Your task to perform on an android device: What's the news in Sri Lanka? Image 0: 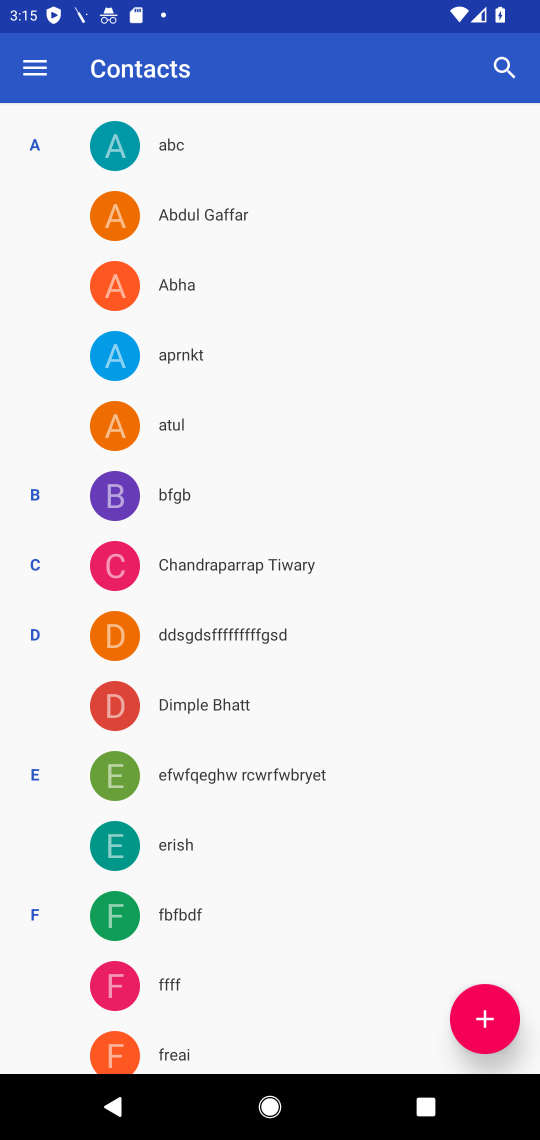
Step 0: press home button
Your task to perform on an android device: What's the news in Sri Lanka? Image 1: 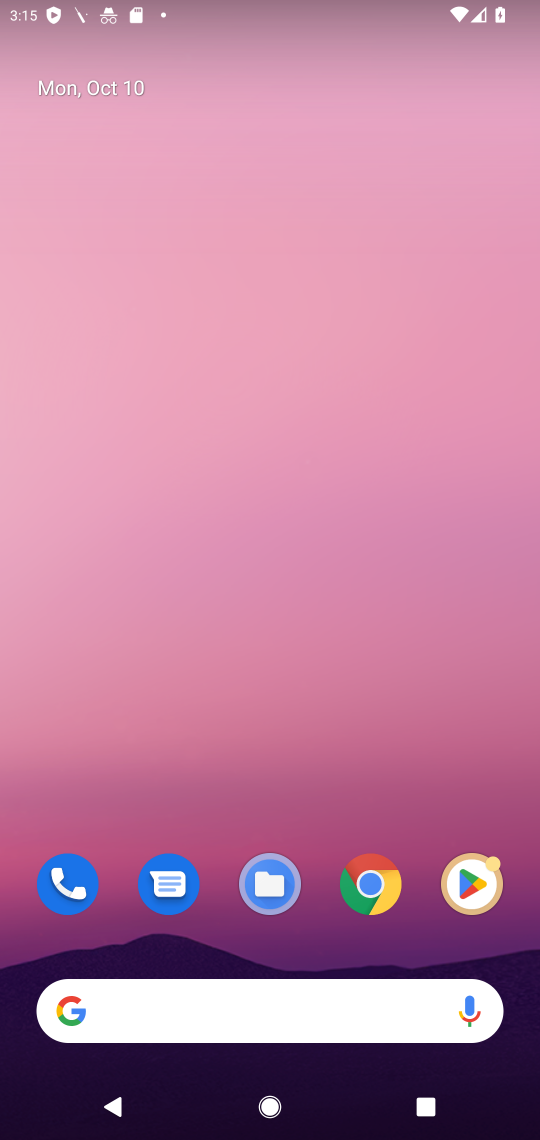
Step 1: click (207, 1014)
Your task to perform on an android device: What's the news in Sri Lanka? Image 2: 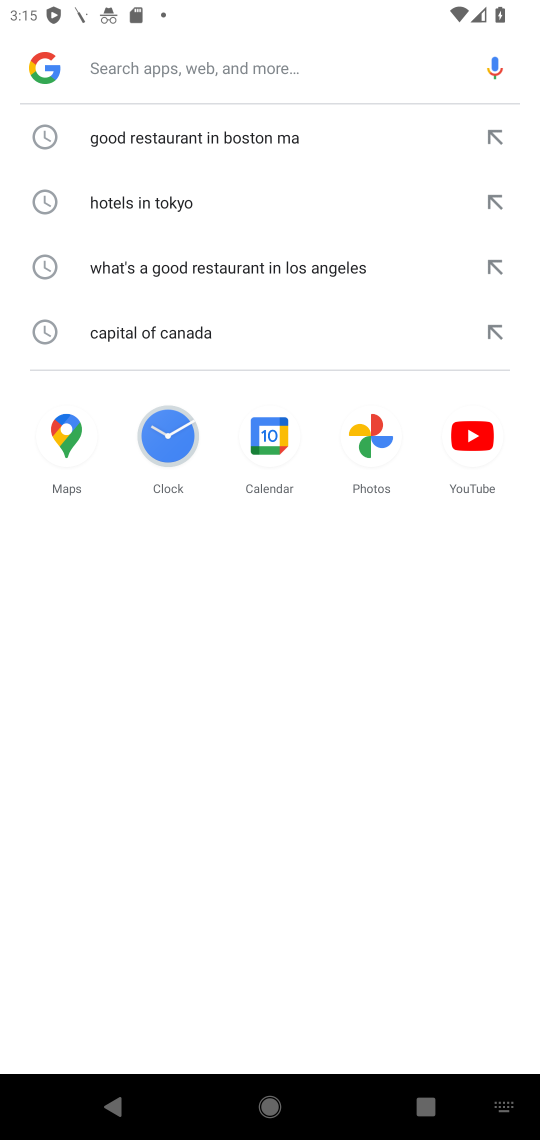
Step 2: type "What's the news in Sri Lanka?"
Your task to perform on an android device: What's the news in Sri Lanka? Image 3: 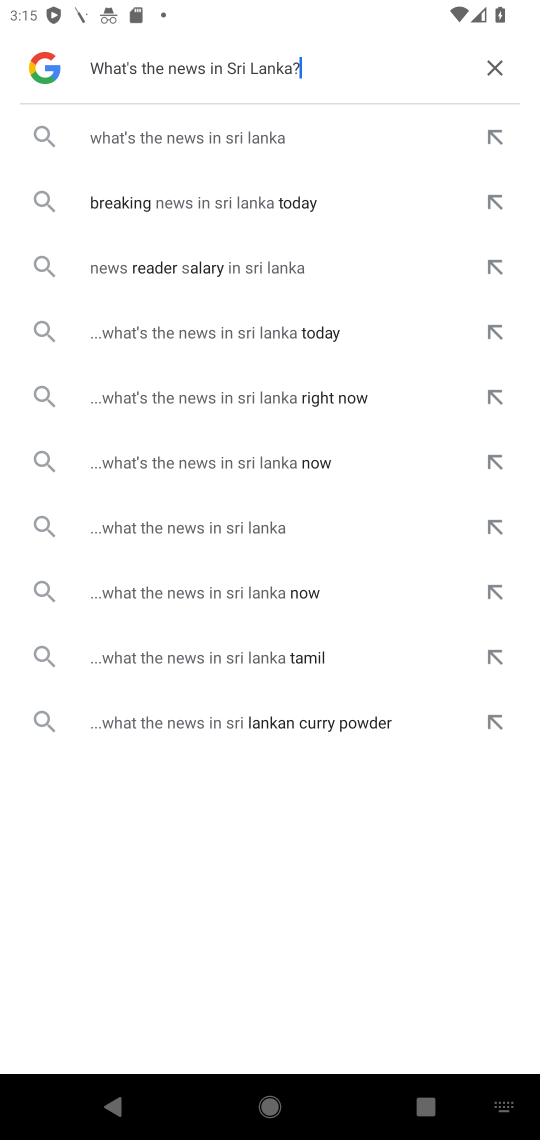
Step 3: click (181, 146)
Your task to perform on an android device: What's the news in Sri Lanka? Image 4: 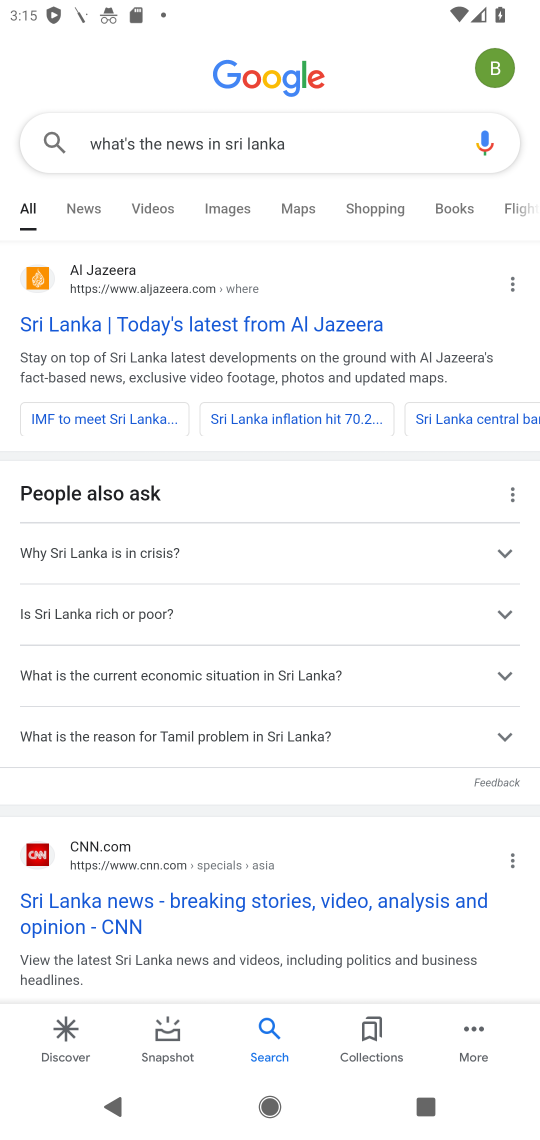
Step 4: click (155, 318)
Your task to perform on an android device: What's the news in Sri Lanka? Image 5: 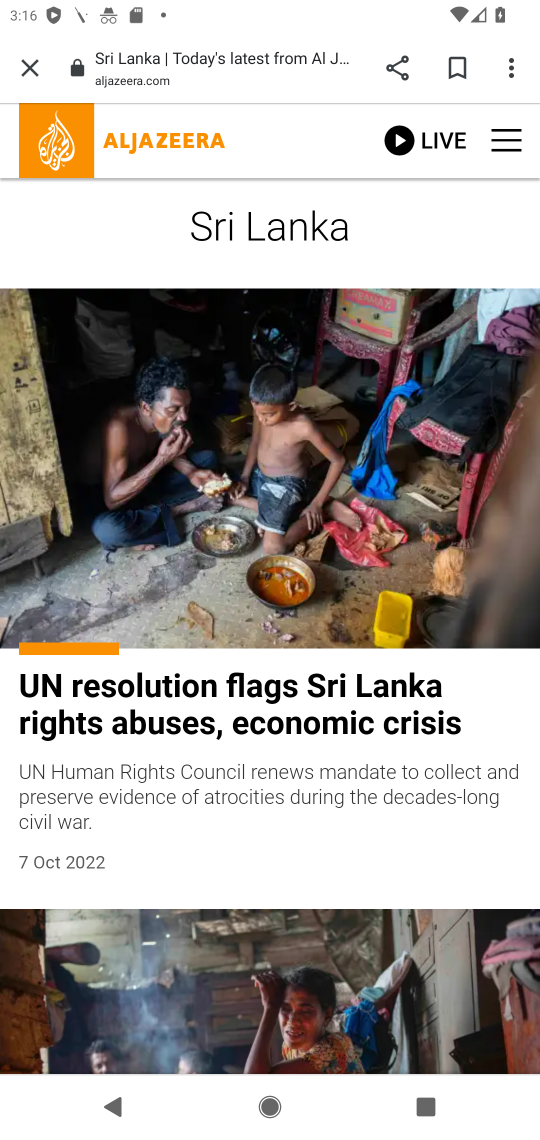
Step 5: task complete